Your task to perform on an android device: What's the weather like in Sydney? Image 0: 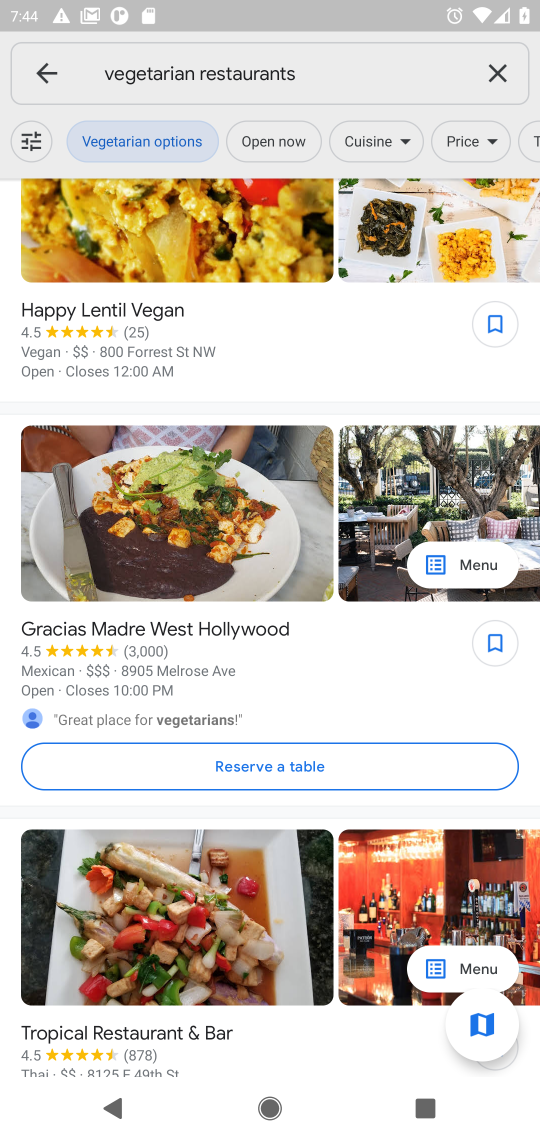
Step 0: press home button
Your task to perform on an android device: What's the weather like in Sydney? Image 1: 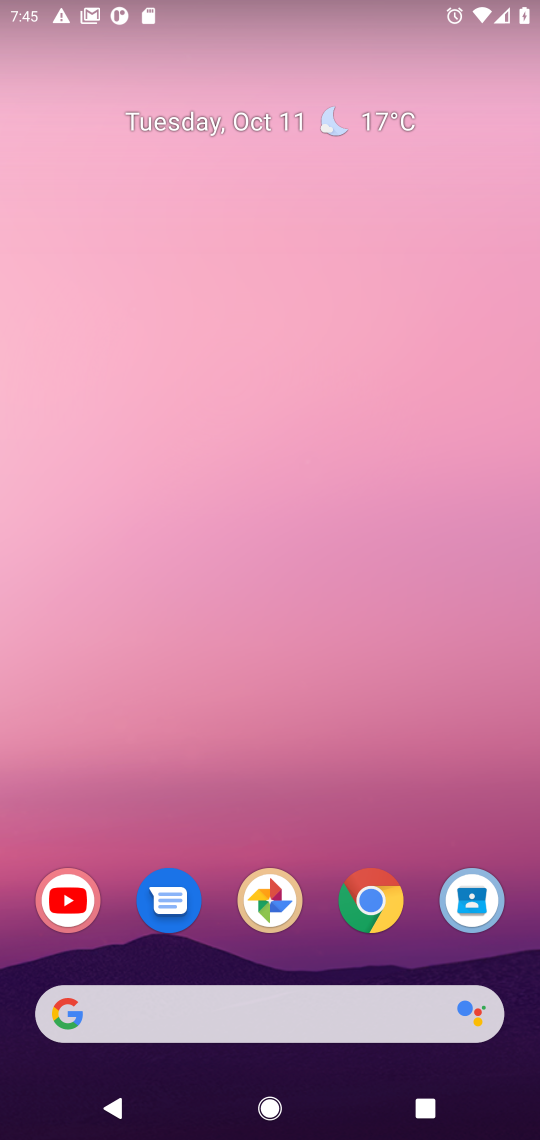
Step 1: click (386, 896)
Your task to perform on an android device: What's the weather like in Sydney? Image 2: 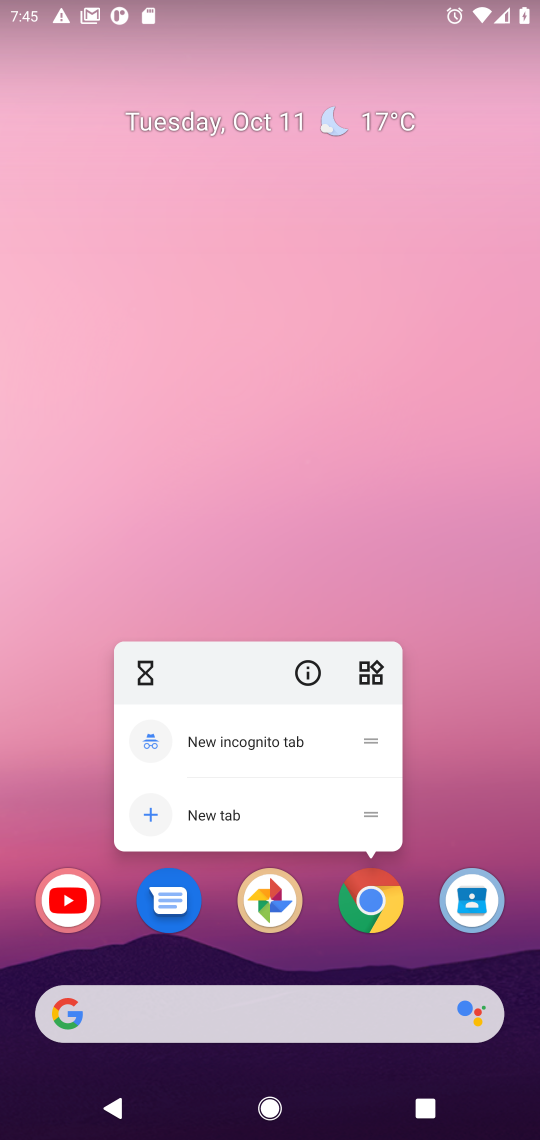
Step 2: click (379, 896)
Your task to perform on an android device: What's the weather like in Sydney? Image 3: 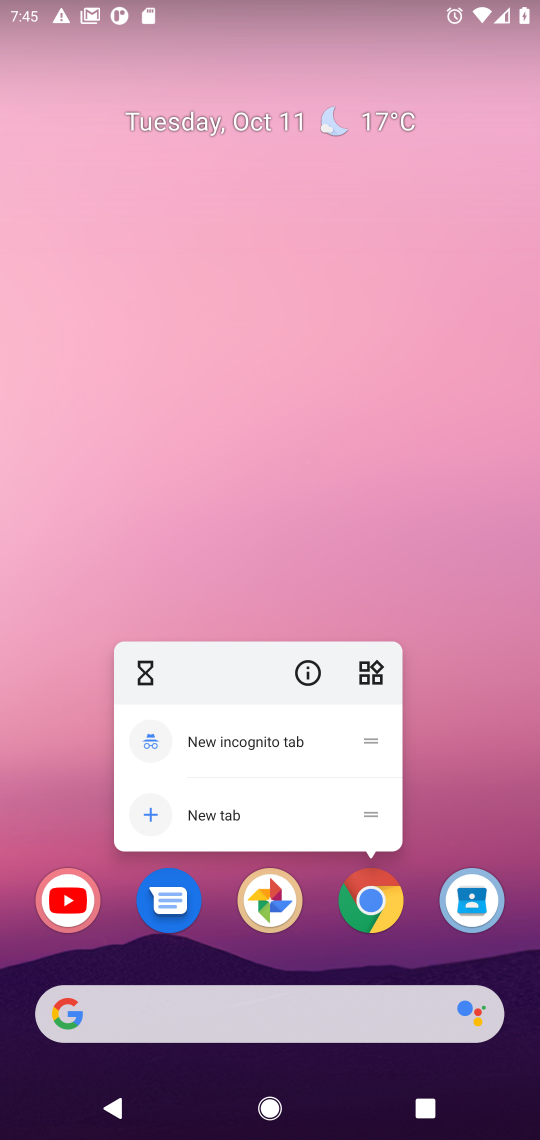
Step 3: click (379, 897)
Your task to perform on an android device: What's the weather like in Sydney? Image 4: 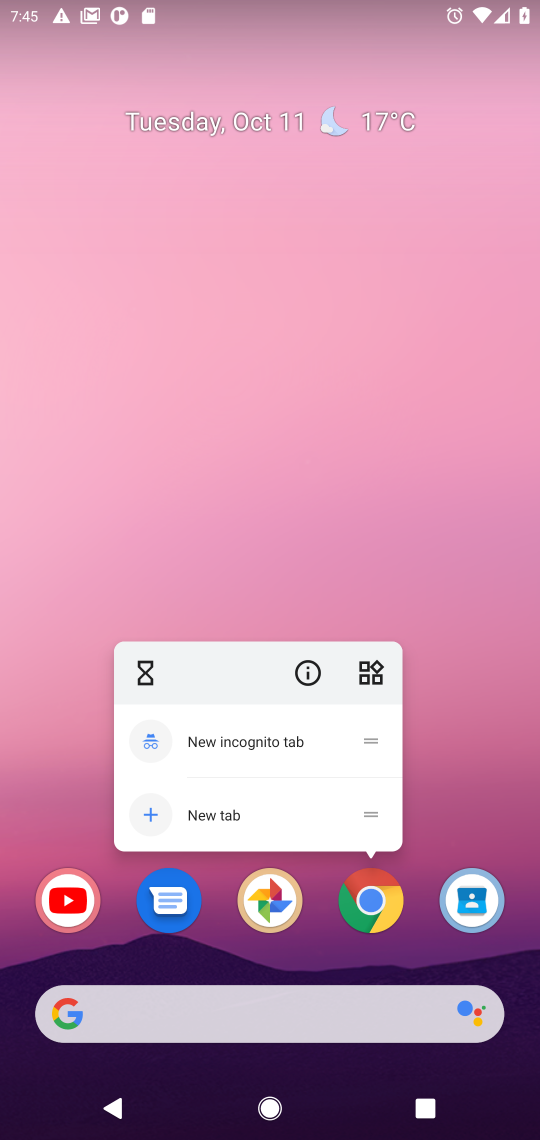
Step 4: click (379, 900)
Your task to perform on an android device: What's the weather like in Sydney? Image 5: 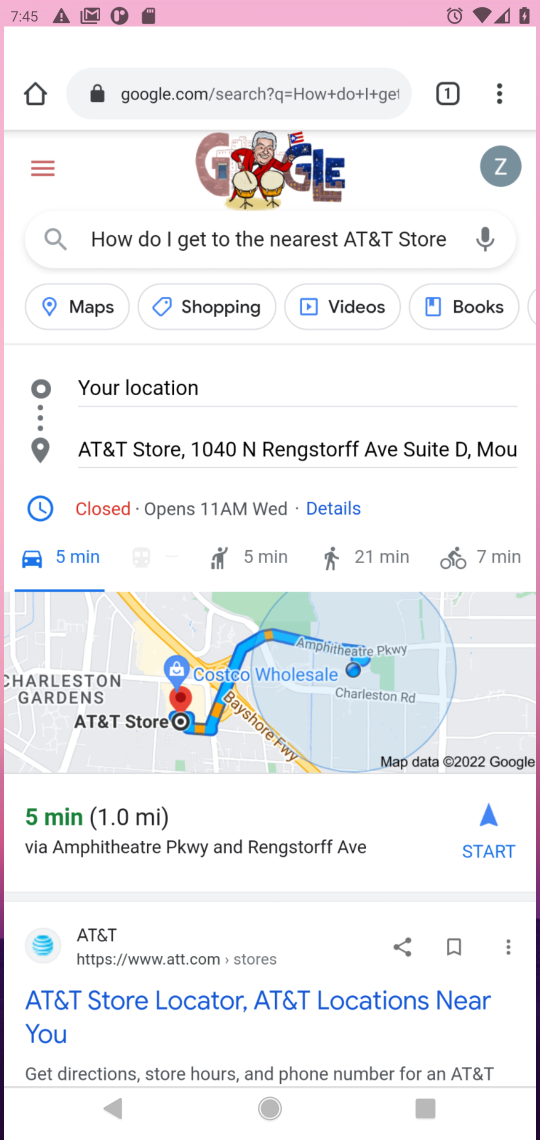
Step 5: click (379, 900)
Your task to perform on an android device: What's the weather like in Sydney? Image 6: 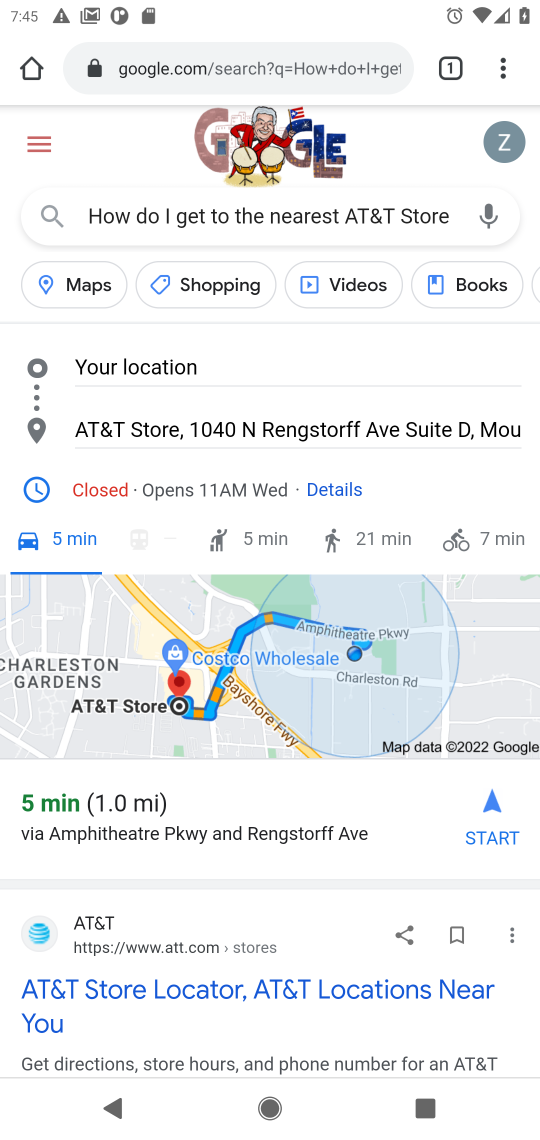
Step 6: click (356, 74)
Your task to perform on an android device: What's the weather like in Sydney? Image 7: 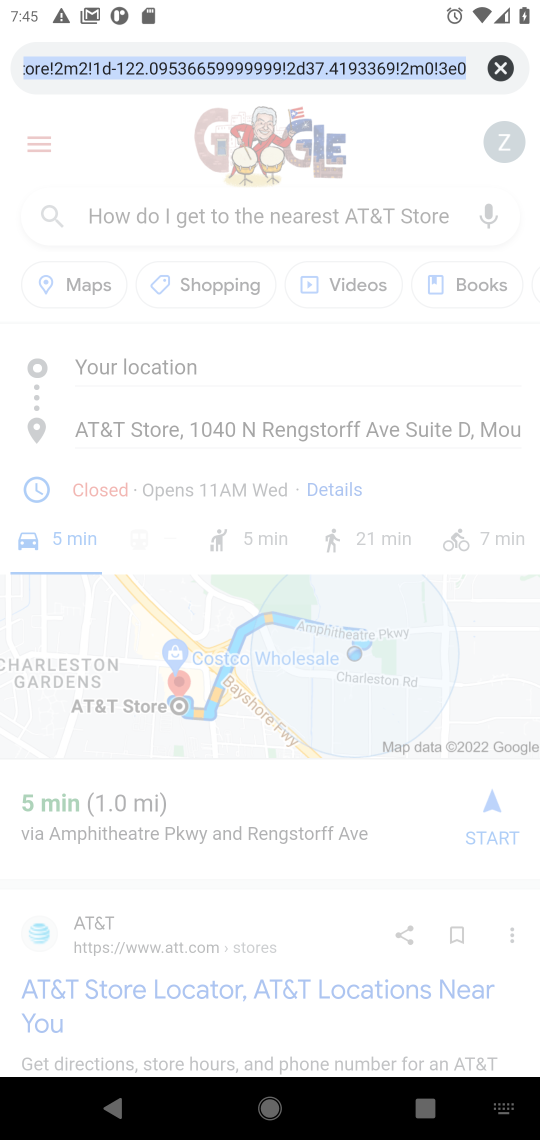
Step 7: click (494, 67)
Your task to perform on an android device: What's the weather like in Sydney? Image 8: 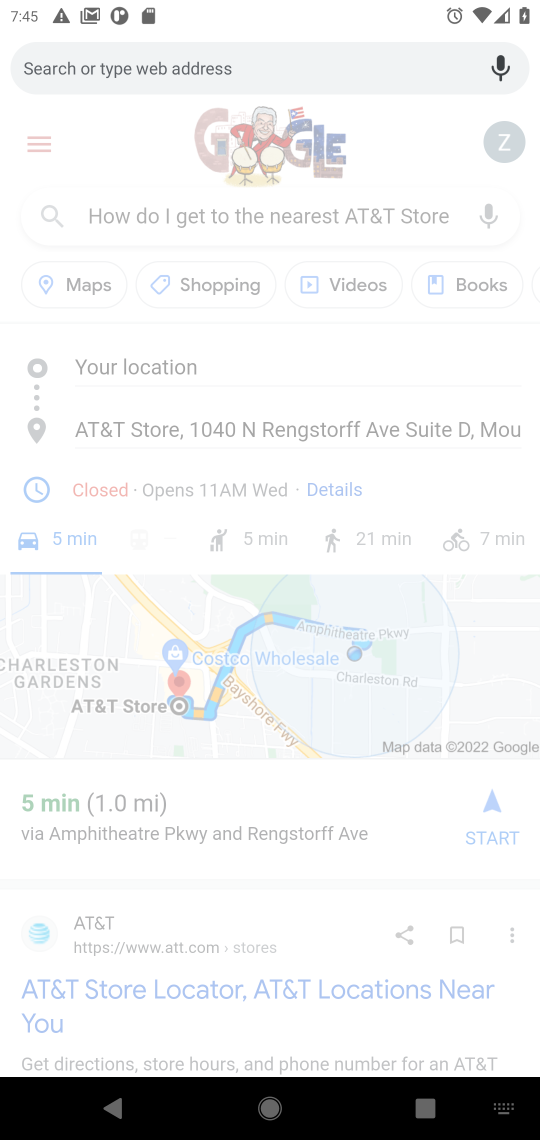
Step 8: type " weather like in Sydney"
Your task to perform on an android device: What's the weather like in Sydney? Image 9: 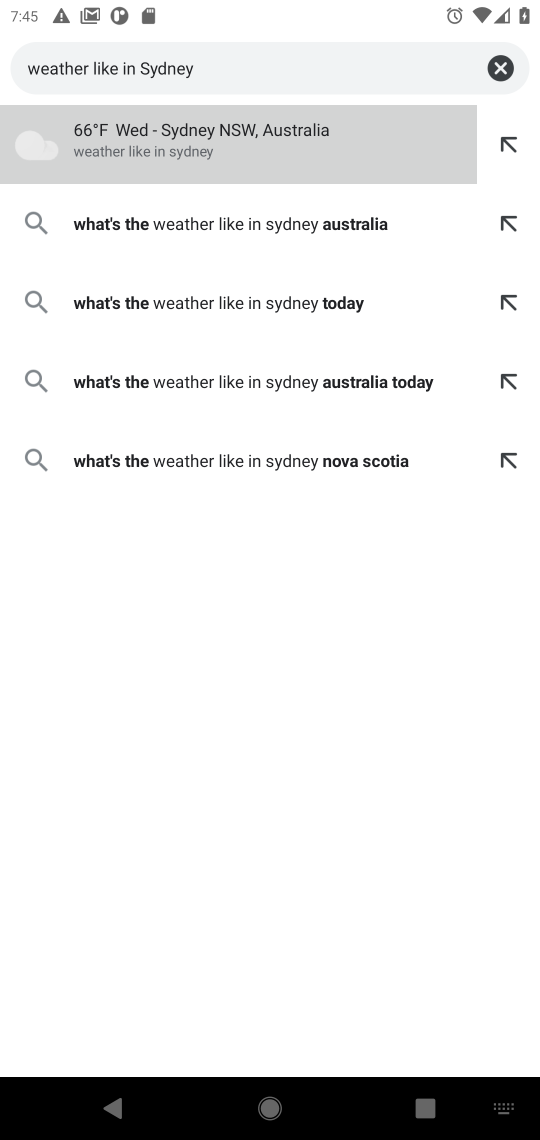
Step 9: press enter
Your task to perform on an android device: What's the weather like in Sydney? Image 10: 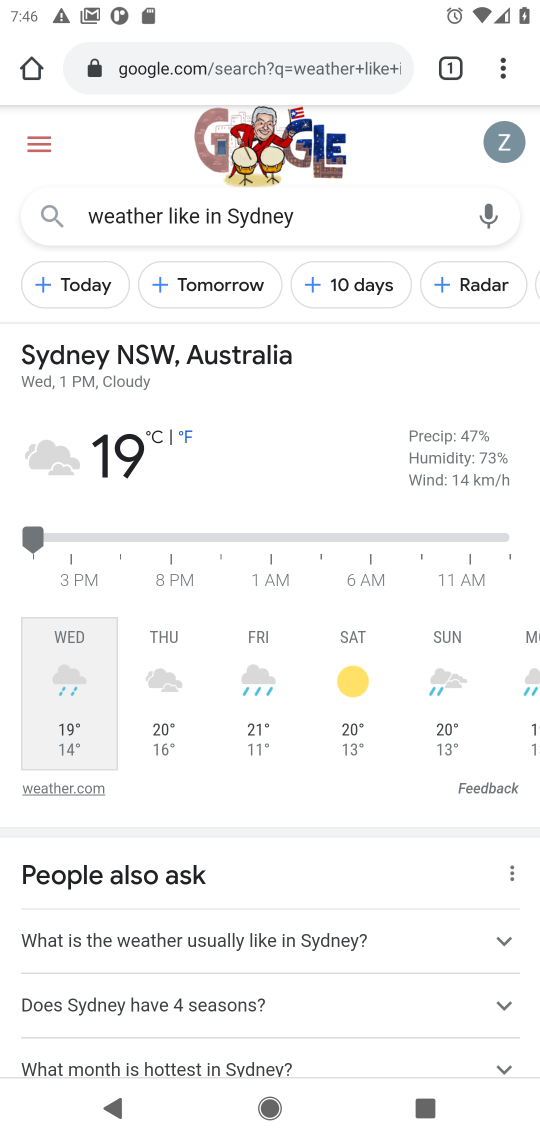
Step 10: task complete